Your task to perform on an android device: Go to Wikipedia Image 0: 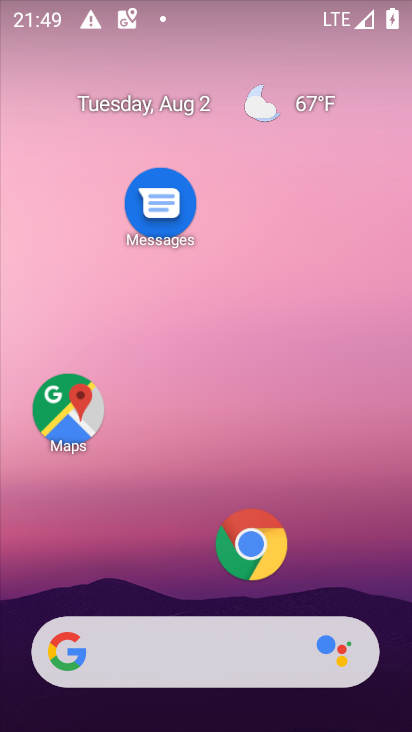
Step 0: click (226, 544)
Your task to perform on an android device: Go to Wikipedia Image 1: 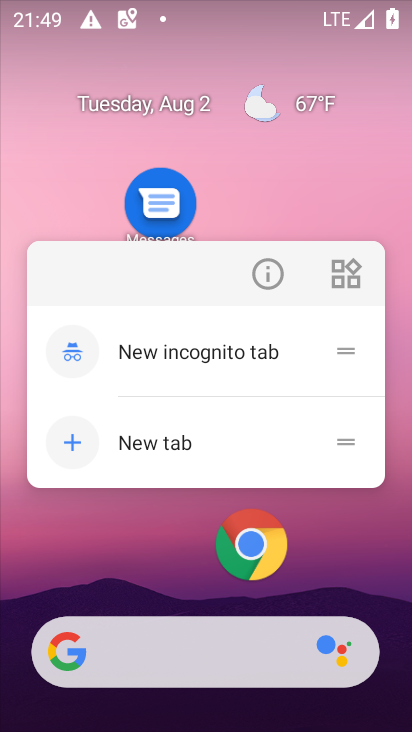
Step 1: click (233, 555)
Your task to perform on an android device: Go to Wikipedia Image 2: 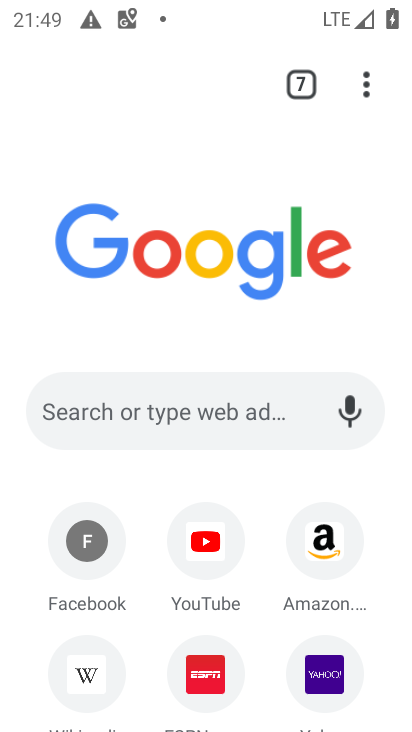
Step 2: click (67, 663)
Your task to perform on an android device: Go to Wikipedia Image 3: 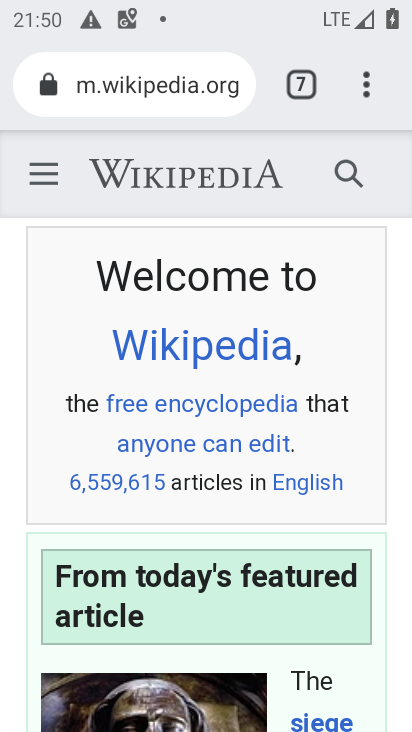
Step 3: task complete